Your task to perform on an android device: delete the emails in spam in the gmail app Image 0: 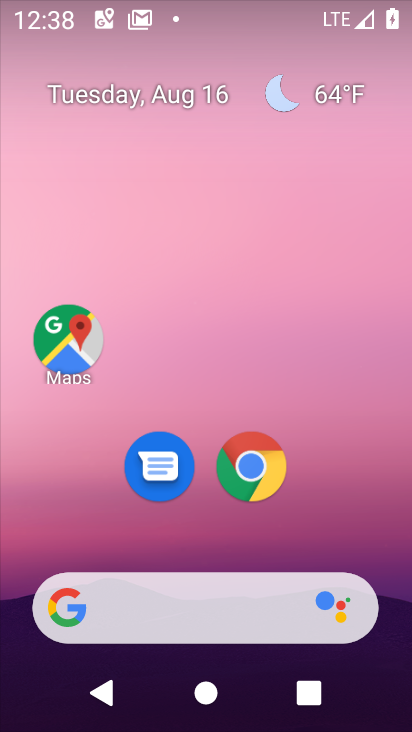
Step 0: drag from (168, 541) to (206, 191)
Your task to perform on an android device: delete the emails in spam in the gmail app Image 1: 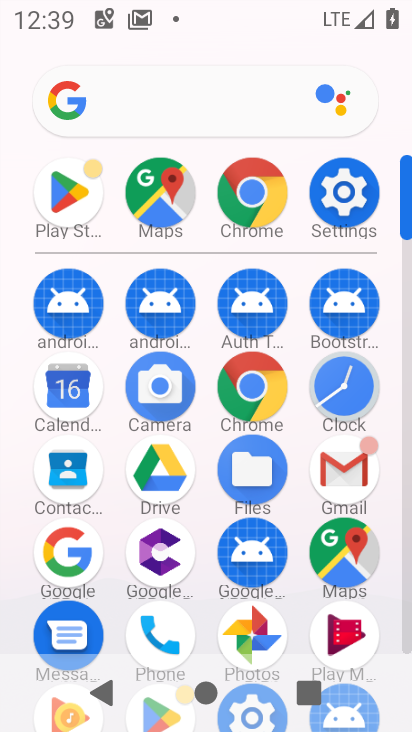
Step 1: click (328, 458)
Your task to perform on an android device: delete the emails in spam in the gmail app Image 2: 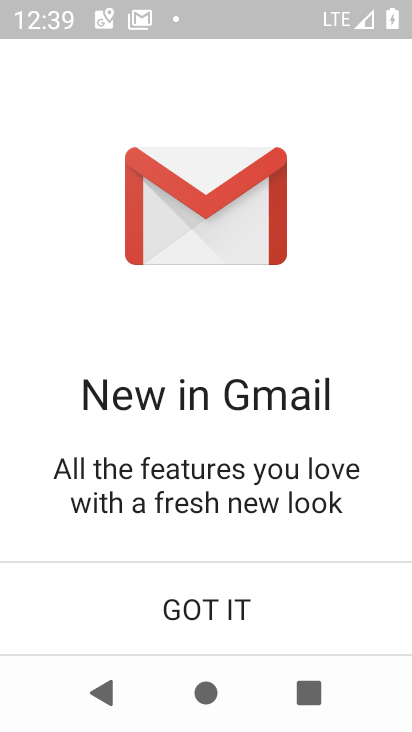
Step 2: click (194, 597)
Your task to perform on an android device: delete the emails in spam in the gmail app Image 3: 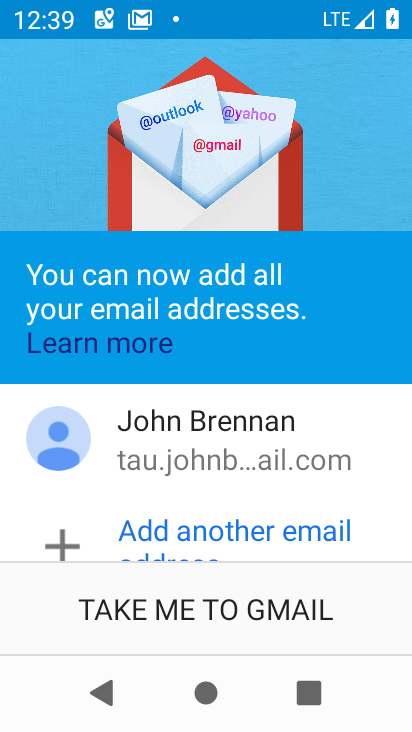
Step 3: click (176, 634)
Your task to perform on an android device: delete the emails in spam in the gmail app Image 4: 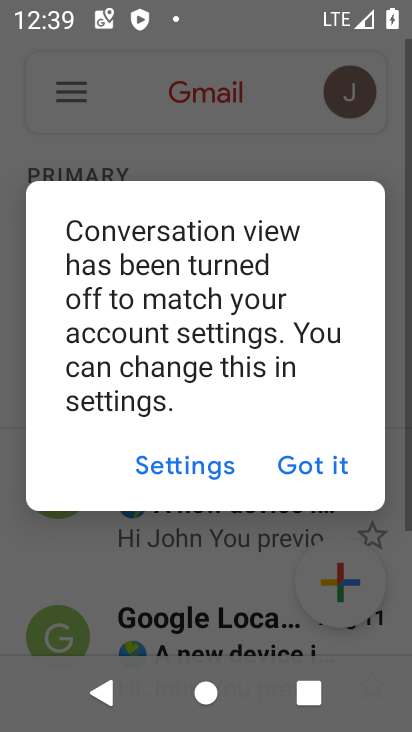
Step 4: click (315, 473)
Your task to perform on an android device: delete the emails in spam in the gmail app Image 5: 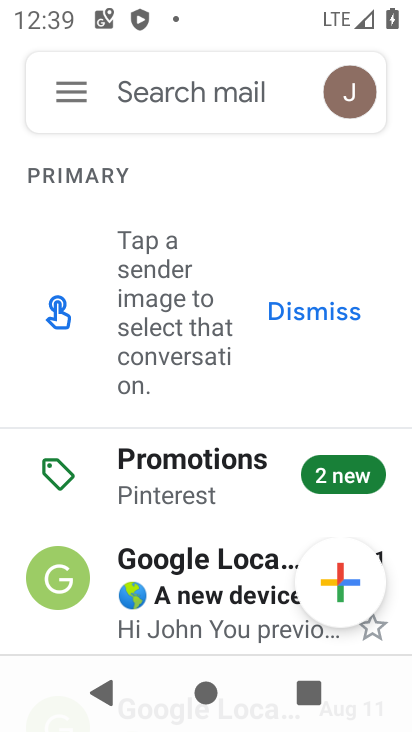
Step 5: click (74, 82)
Your task to perform on an android device: delete the emails in spam in the gmail app Image 6: 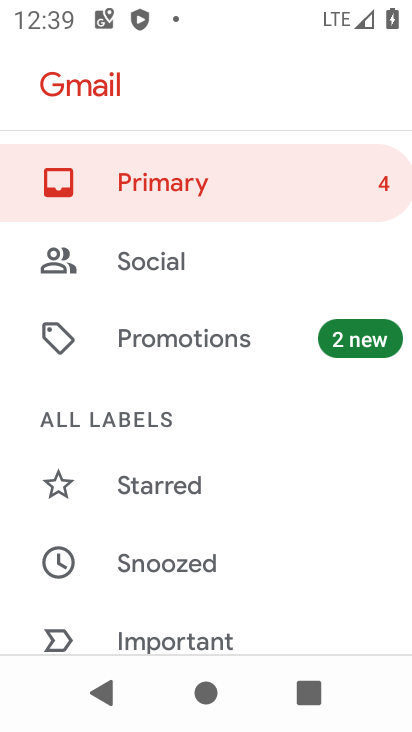
Step 6: drag from (162, 620) to (244, 336)
Your task to perform on an android device: delete the emails in spam in the gmail app Image 7: 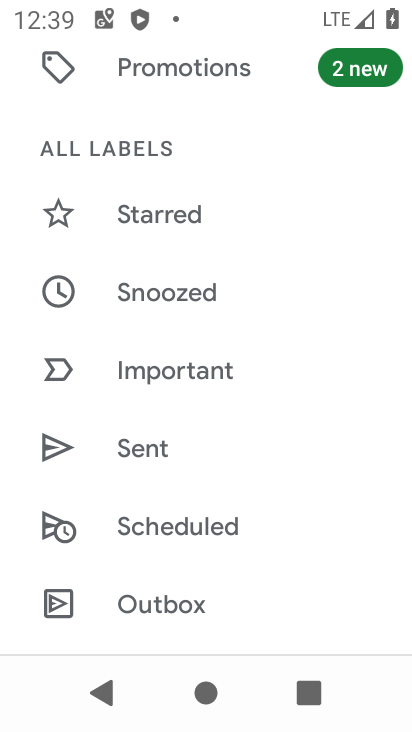
Step 7: drag from (210, 618) to (247, 315)
Your task to perform on an android device: delete the emails in spam in the gmail app Image 8: 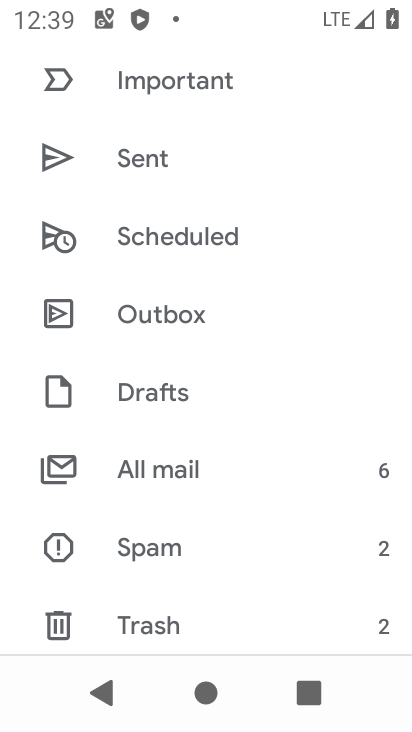
Step 8: click (197, 481)
Your task to perform on an android device: delete the emails in spam in the gmail app Image 9: 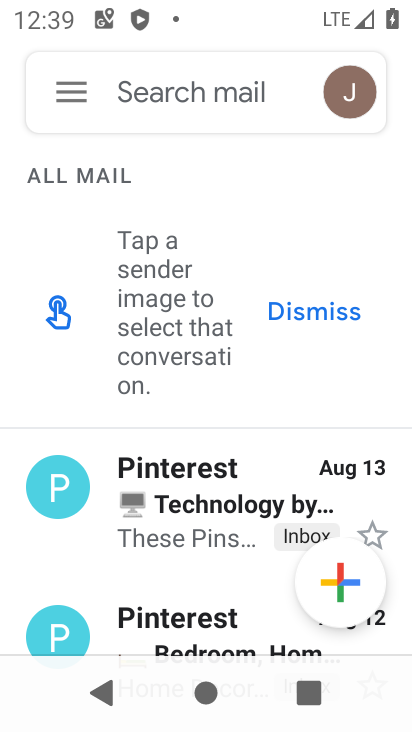
Step 9: click (181, 504)
Your task to perform on an android device: delete the emails in spam in the gmail app Image 10: 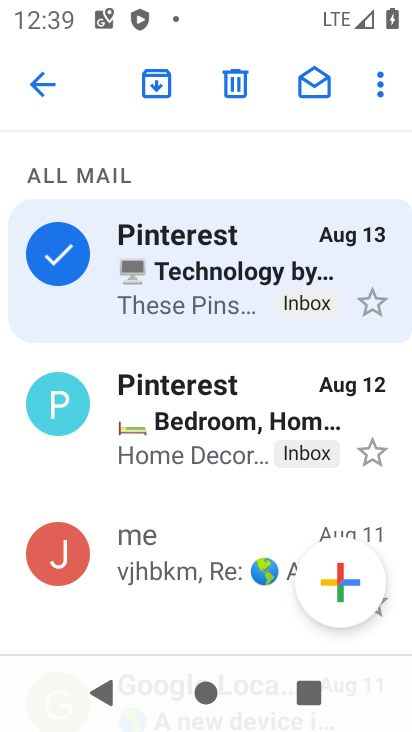
Step 10: click (248, 75)
Your task to perform on an android device: delete the emails in spam in the gmail app Image 11: 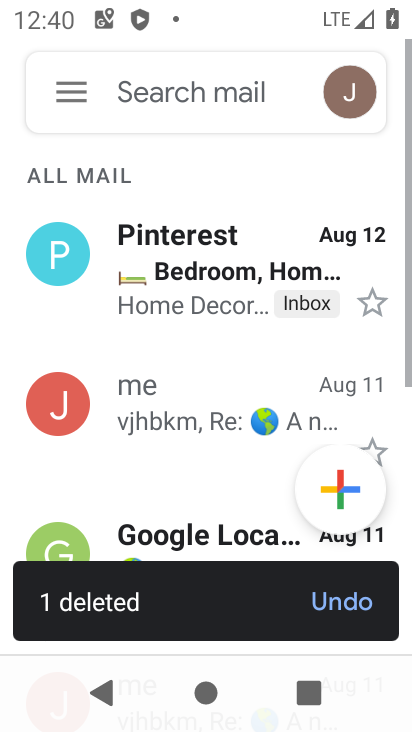
Step 11: click (61, 80)
Your task to perform on an android device: delete the emails in spam in the gmail app Image 12: 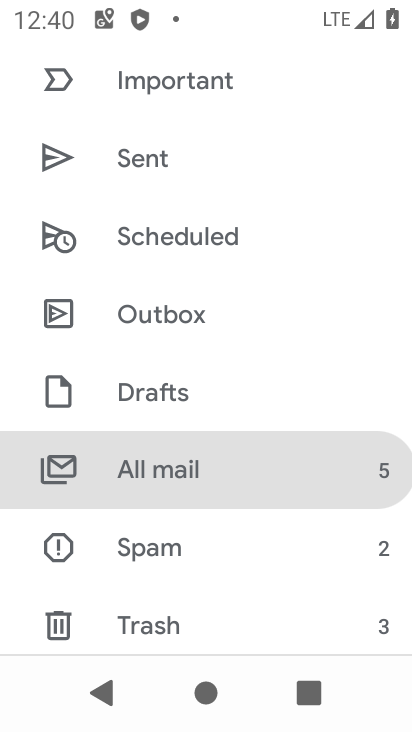
Step 12: click (160, 555)
Your task to perform on an android device: delete the emails in spam in the gmail app Image 13: 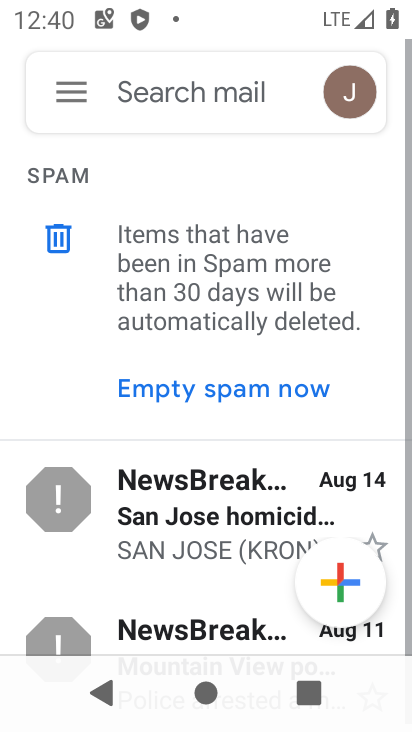
Step 13: click (157, 513)
Your task to perform on an android device: delete the emails in spam in the gmail app Image 14: 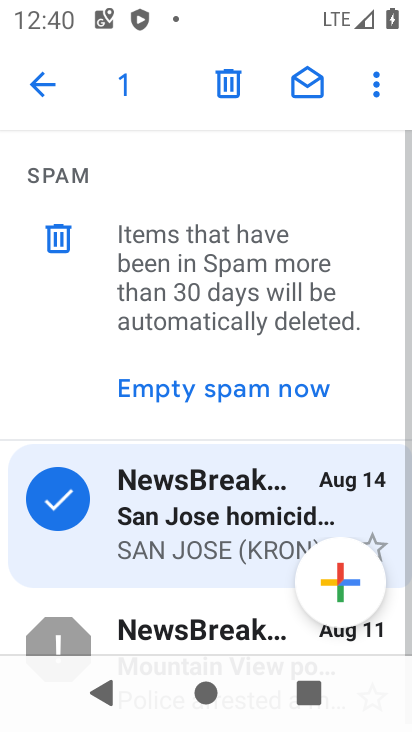
Step 14: click (232, 88)
Your task to perform on an android device: delete the emails in spam in the gmail app Image 15: 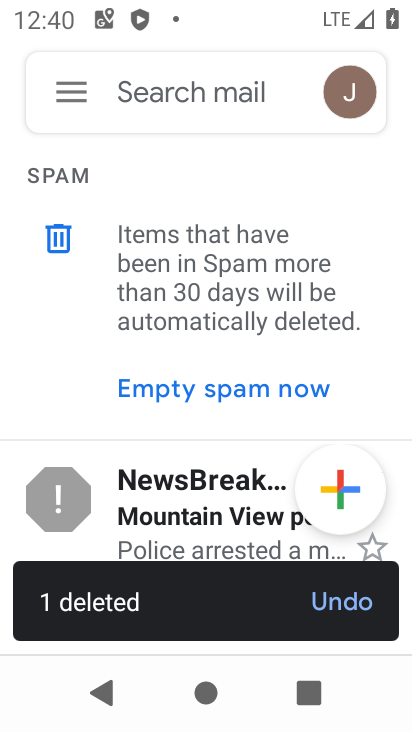
Step 15: task complete